Your task to perform on an android device: See recent photos Image 0: 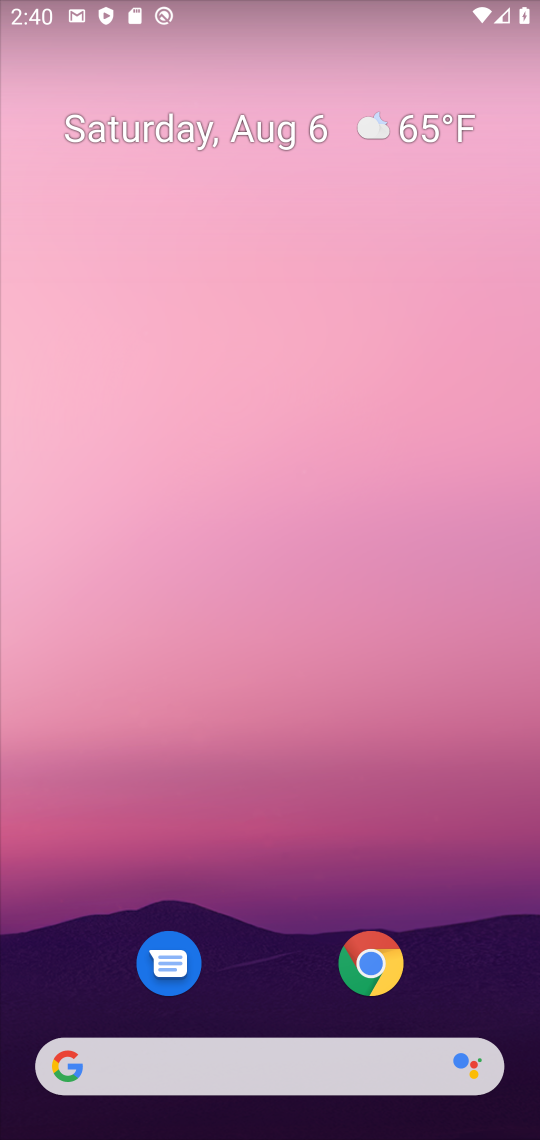
Step 0: drag from (472, 973) to (404, 344)
Your task to perform on an android device: See recent photos Image 1: 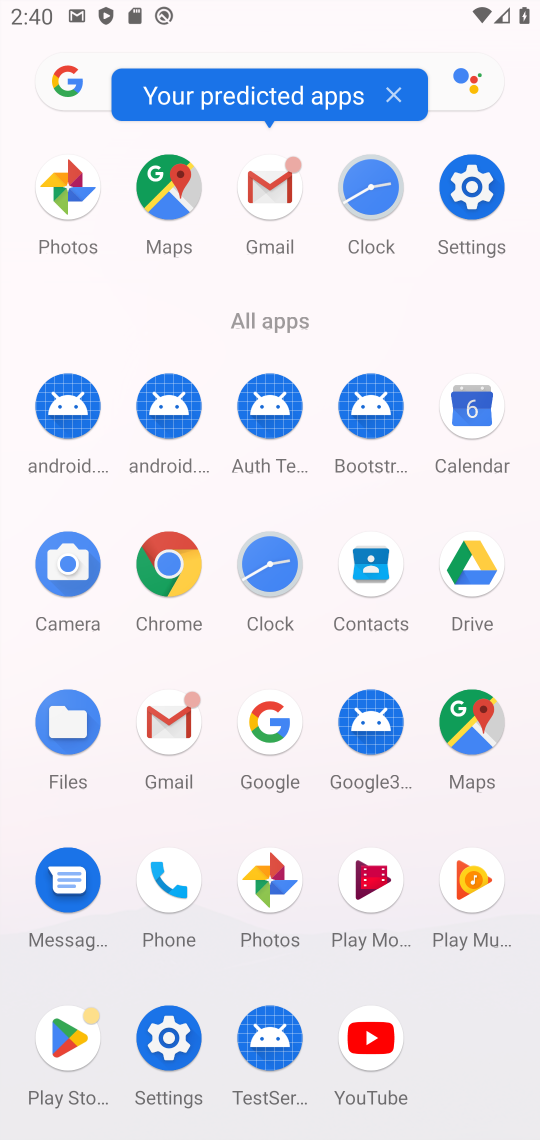
Step 1: click (279, 880)
Your task to perform on an android device: See recent photos Image 2: 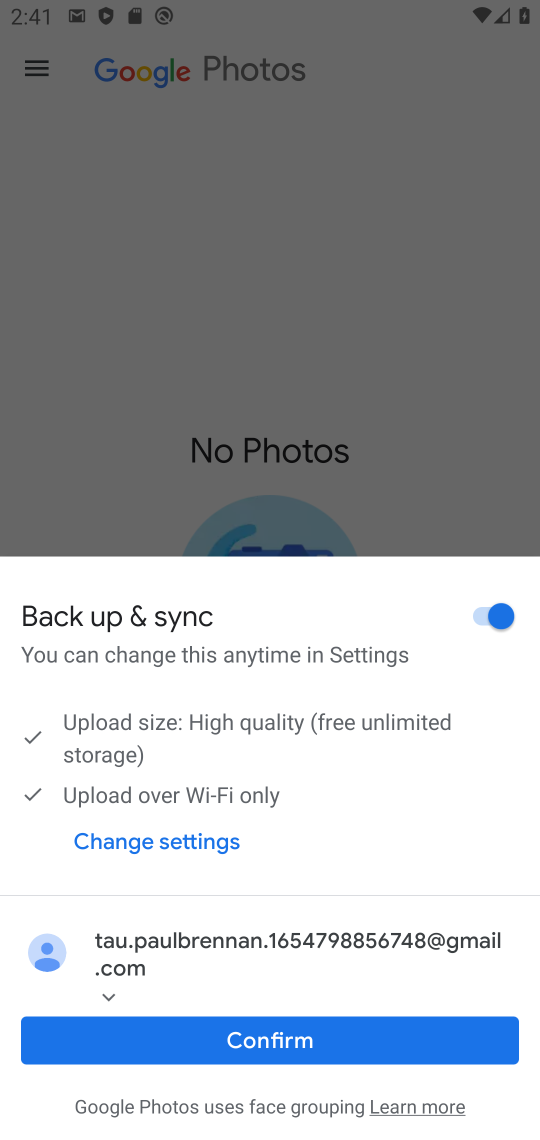
Step 2: click (247, 1029)
Your task to perform on an android device: See recent photos Image 3: 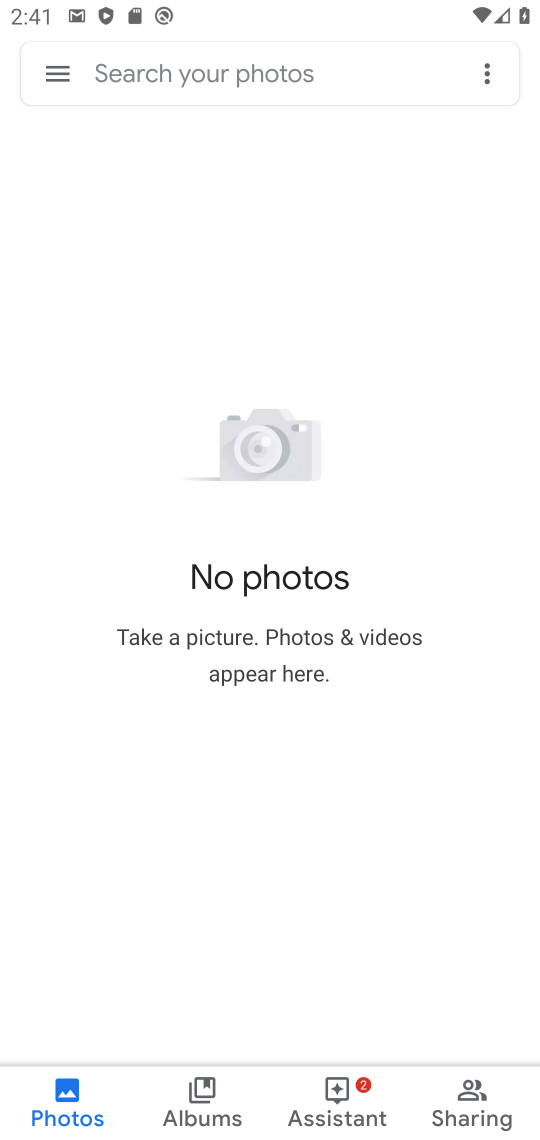
Step 3: task complete